Your task to perform on an android device: Show me popular videos on Youtube Image 0: 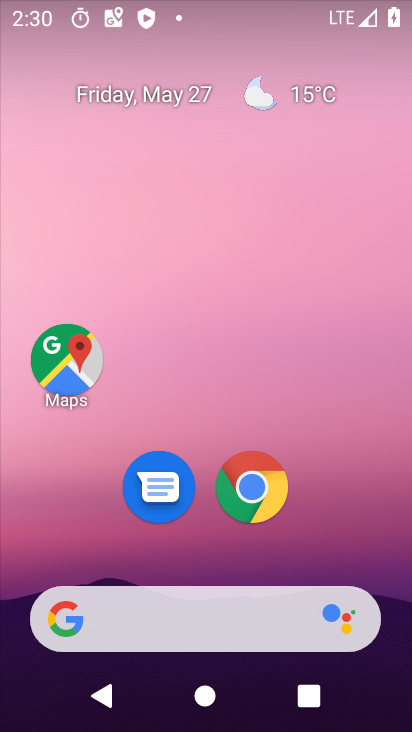
Step 0: drag from (301, 523) to (332, 70)
Your task to perform on an android device: Show me popular videos on Youtube Image 1: 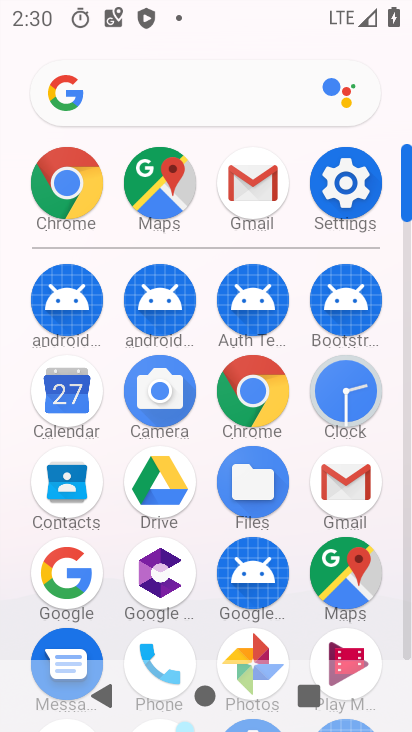
Step 1: drag from (218, 610) to (307, 151)
Your task to perform on an android device: Show me popular videos on Youtube Image 2: 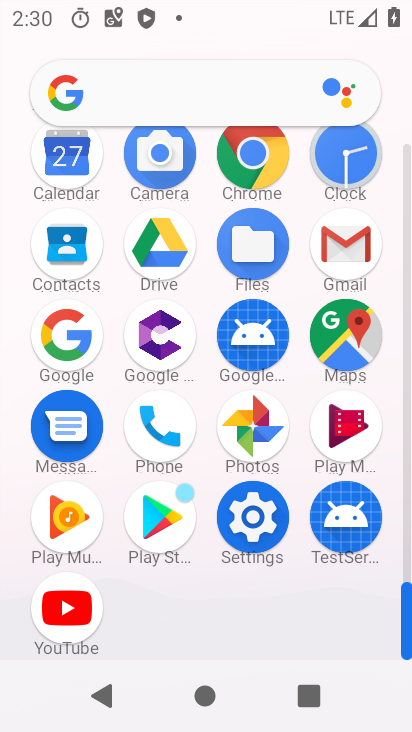
Step 2: click (73, 607)
Your task to perform on an android device: Show me popular videos on Youtube Image 3: 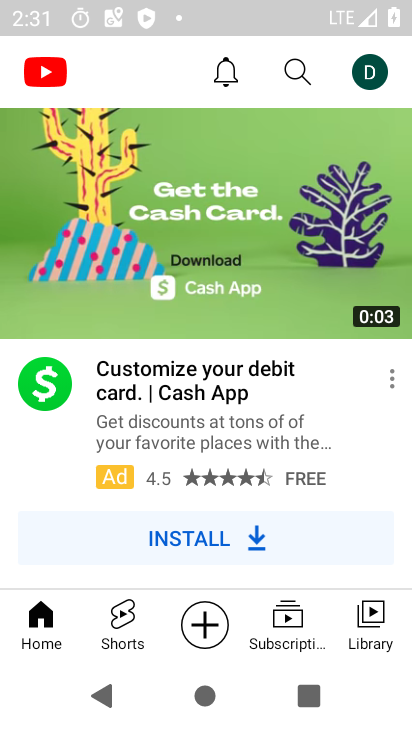
Step 3: drag from (220, 241) to (246, 520)
Your task to perform on an android device: Show me popular videos on Youtube Image 4: 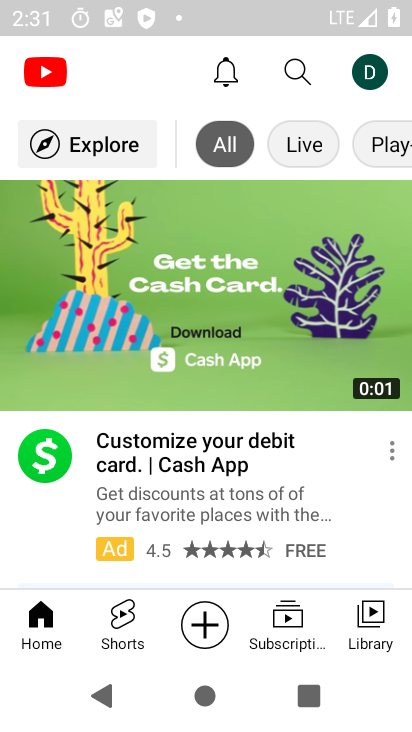
Step 4: click (116, 154)
Your task to perform on an android device: Show me popular videos on Youtube Image 5: 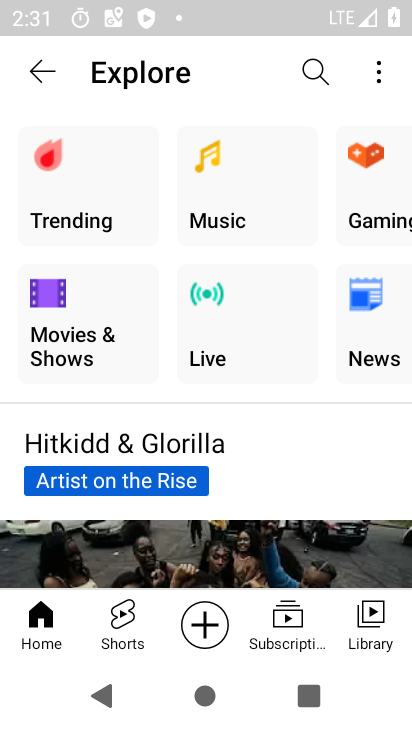
Step 5: drag from (294, 291) to (23, 298)
Your task to perform on an android device: Show me popular videos on Youtube Image 6: 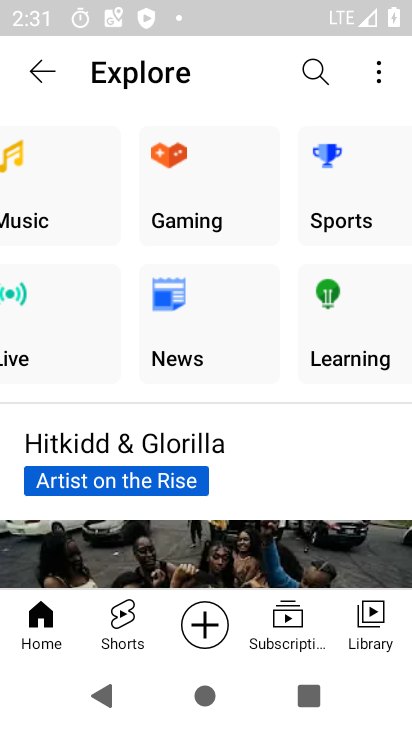
Step 6: drag from (251, 246) to (403, 259)
Your task to perform on an android device: Show me popular videos on Youtube Image 7: 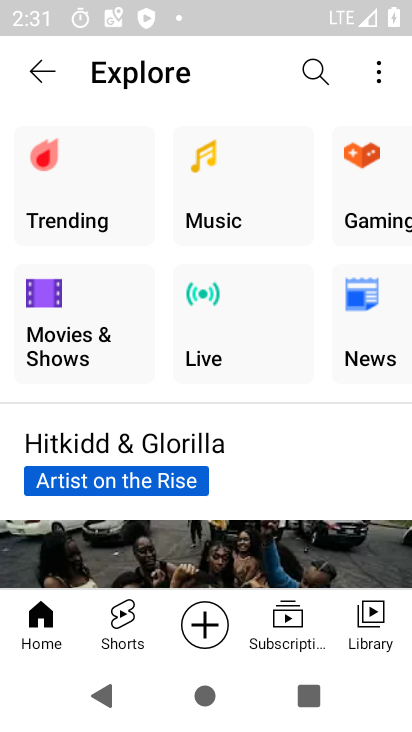
Step 7: click (115, 176)
Your task to perform on an android device: Show me popular videos on Youtube Image 8: 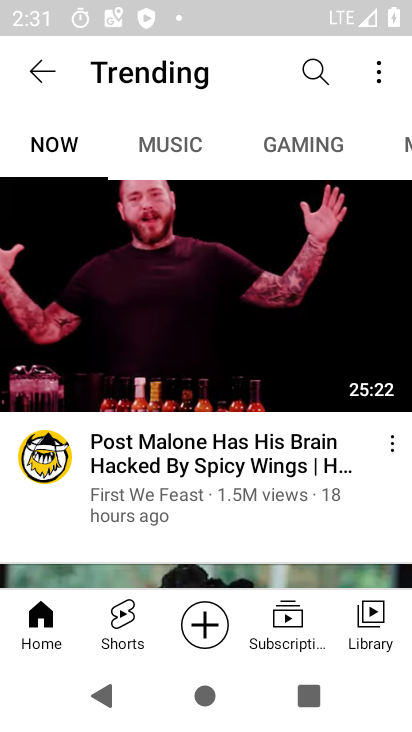
Step 8: task complete